Your task to perform on an android device: What's the weather today? Image 0: 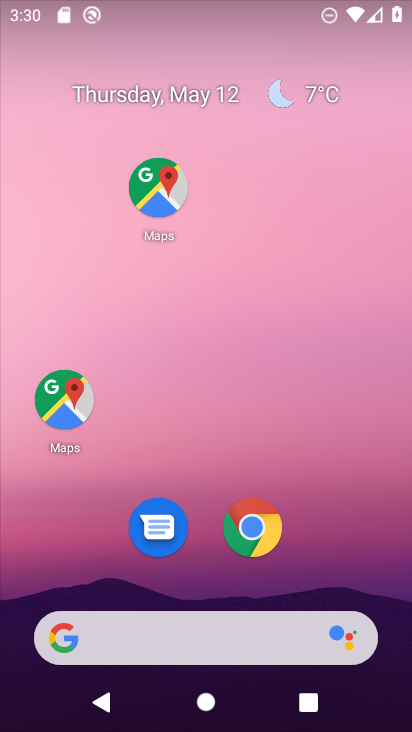
Step 0: drag from (222, 591) to (169, 22)
Your task to perform on an android device: What's the weather today? Image 1: 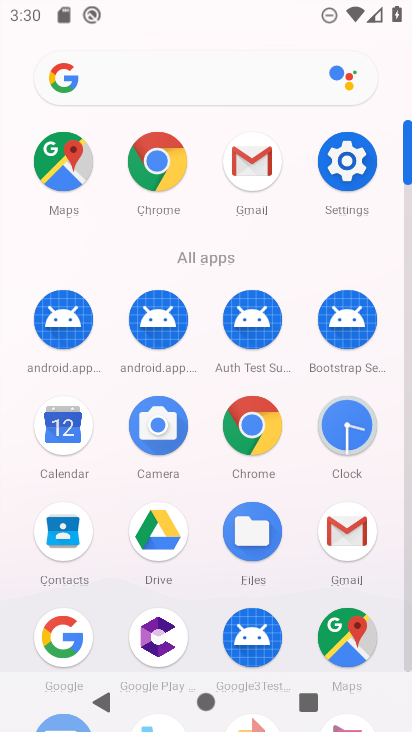
Step 1: click (69, 628)
Your task to perform on an android device: What's the weather today? Image 2: 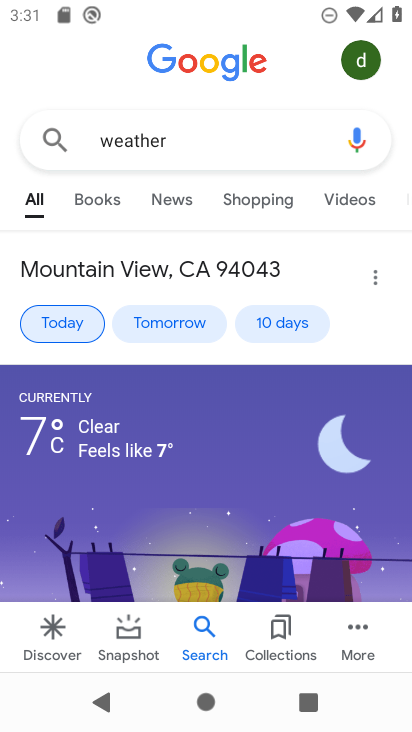
Step 2: task complete